Your task to perform on an android device: Is it going to rain tomorrow? Image 0: 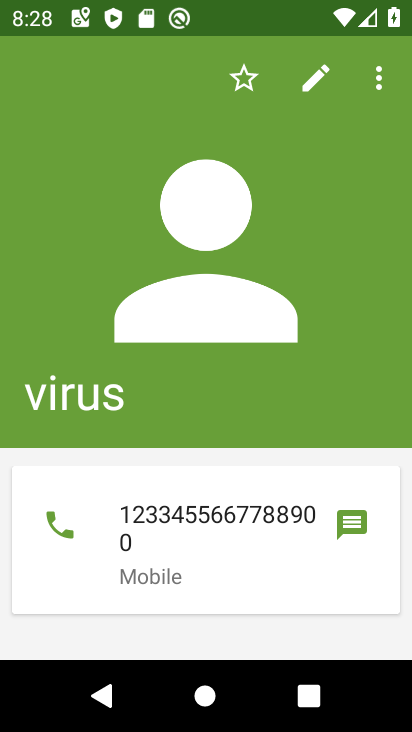
Step 0: press home button
Your task to perform on an android device: Is it going to rain tomorrow? Image 1: 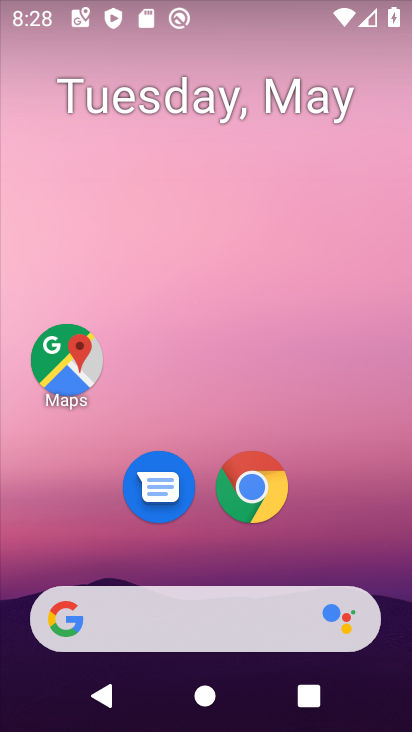
Step 1: click (233, 629)
Your task to perform on an android device: Is it going to rain tomorrow? Image 2: 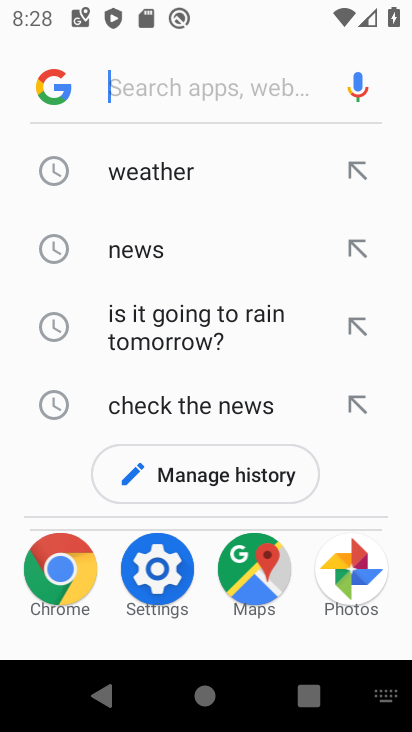
Step 2: click (218, 175)
Your task to perform on an android device: Is it going to rain tomorrow? Image 3: 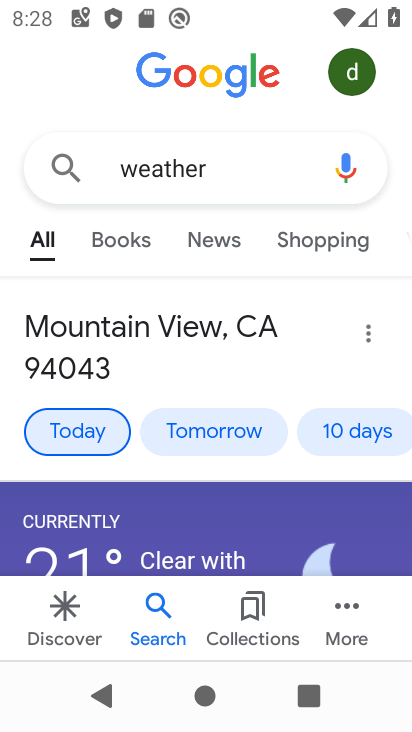
Step 3: click (221, 402)
Your task to perform on an android device: Is it going to rain tomorrow? Image 4: 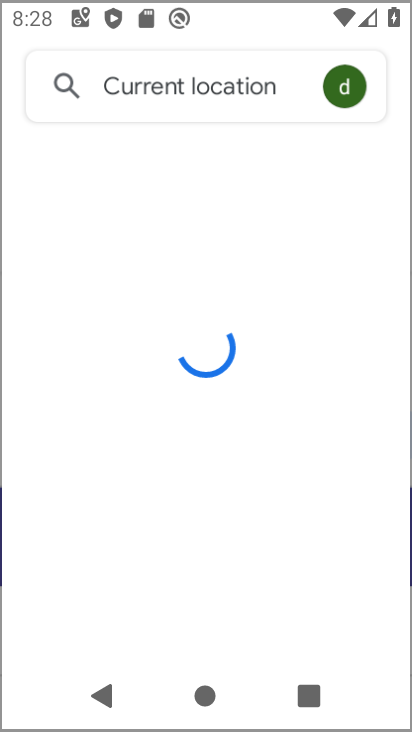
Step 4: click (221, 426)
Your task to perform on an android device: Is it going to rain tomorrow? Image 5: 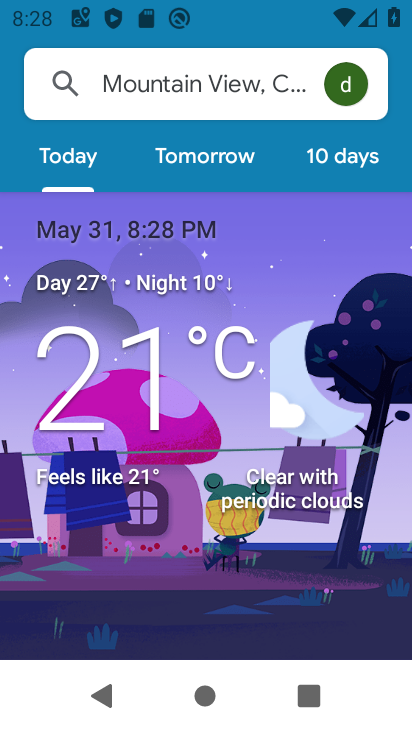
Step 5: click (212, 170)
Your task to perform on an android device: Is it going to rain tomorrow? Image 6: 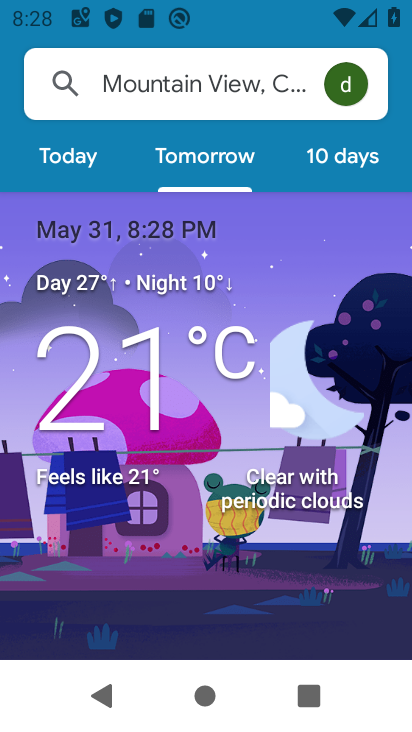
Step 6: task complete